Your task to perform on an android device: choose inbox layout in the gmail app Image 0: 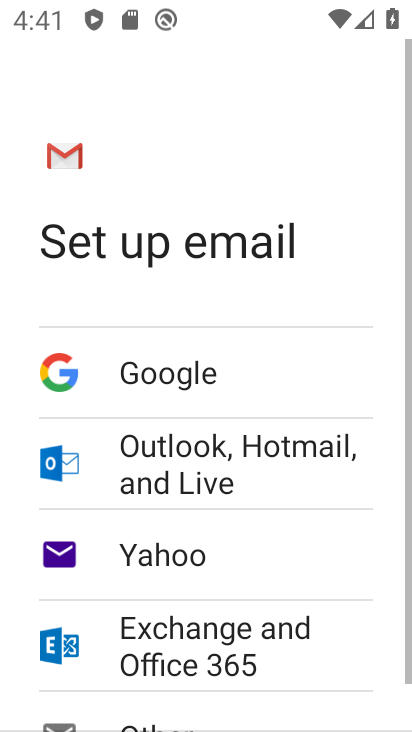
Step 0: press home button
Your task to perform on an android device: choose inbox layout in the gmail app Image 1: 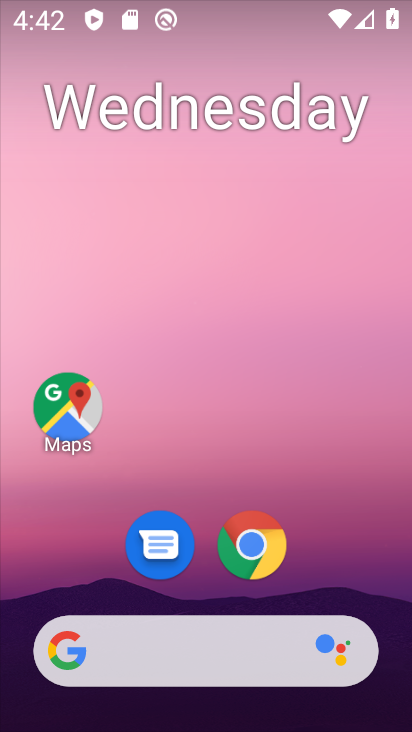
Step 1: drag from (323, 544) to (288, 146)
Your task to perform on an android device: choose inbox layout in the gmail app Image 2: 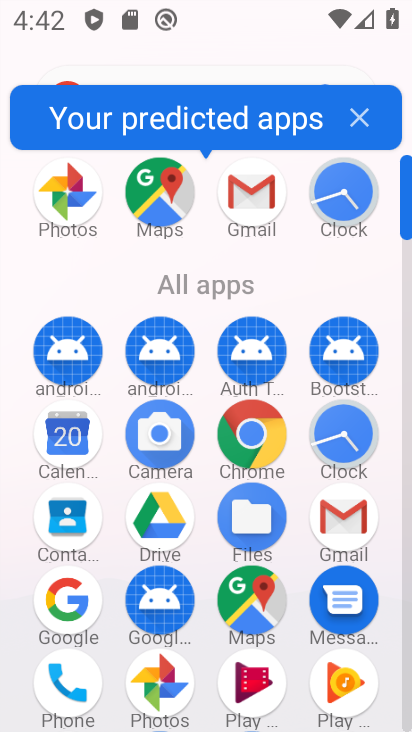
Step 2: click (340, 501)
Your task to perform on an android device: choose inbox layout in the gmail app Image 3: 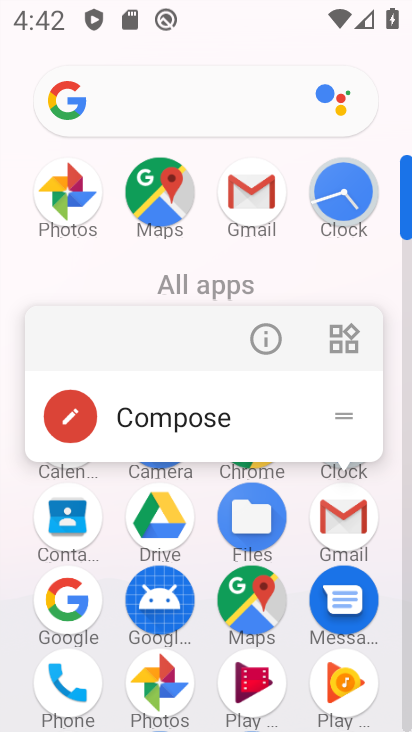
Step 3: click (334, 507)
Your task to perform on an android device: choose inbox layout in the gmail app Image 4: 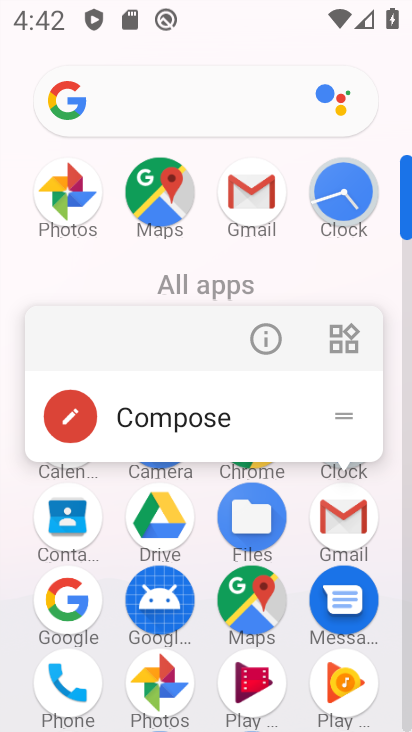
Step 4: click (360, 526)
Your task to perform on an android device: choose inbox layout in the gmail app Image 5: 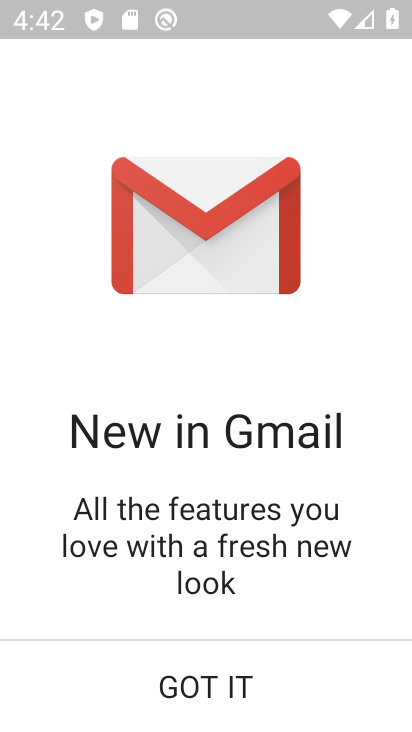
Step 5: click (173, 682)
Your task to perform on an android device: choose inbox layout in the gmail app Image 6: 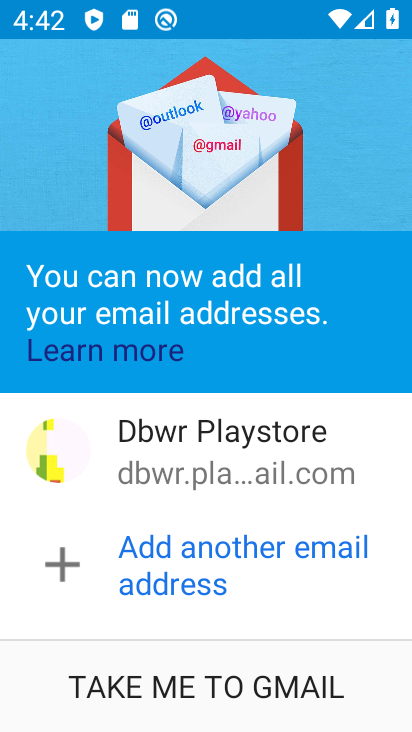
Step 6: click (266, 685)
Your task to perform on an android device: choose inbox layout in the gmail app Image 7: 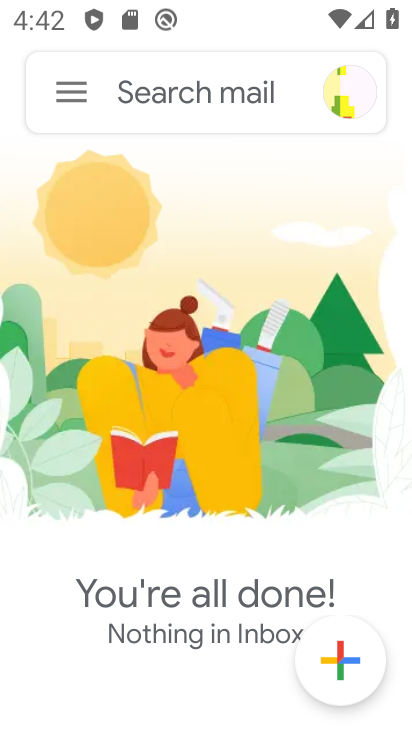
Step 7: click (62, 92)
Your task to perform on an android device: choose inbox layout in the gmail app Image 8: 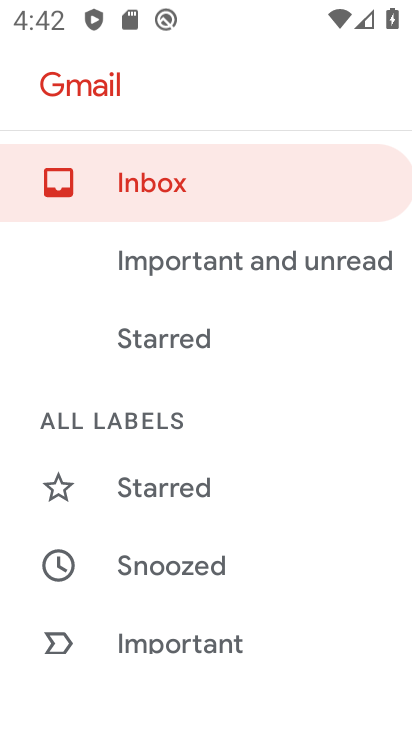
Step 8: drag from (203, 589) to (300, 151)
Your task to perform on an android device: choose inbox layout in the gmail app Image 9: 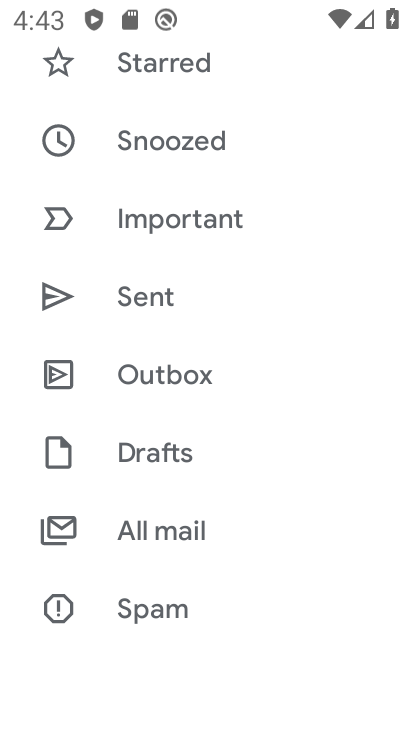
Step 9: drag from (233, 610) to (272, 182)
Your task to perform on an android device: choose inbox layout in the gmail app Image 10: 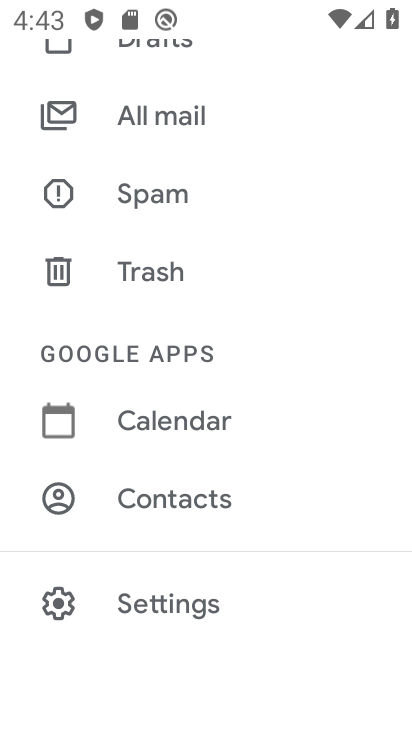
Step 10: drag from (223, 535) to (244, 167)
Your task to perform on an android device: choose inbox layout in the gmail app Image 11: 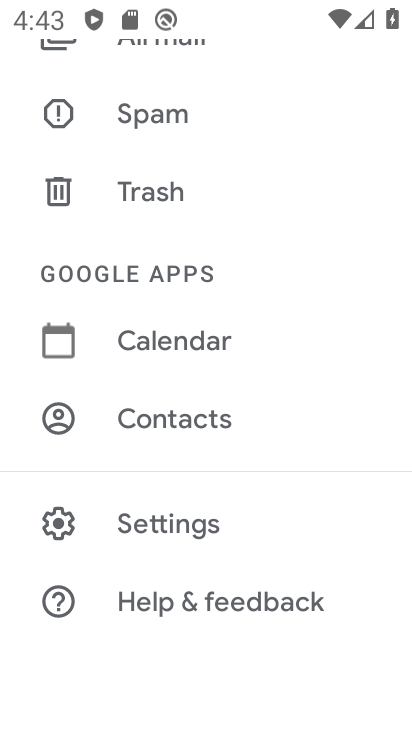
Step 11: click (170, 514)
Your task to perform on an android device: choose inbox layout in the gmail app Image 12: 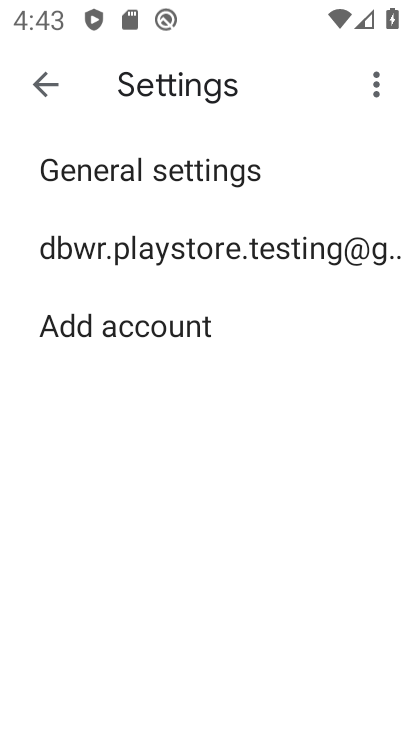
Step 12: click (245, 251)
Your task to perform on an android device: choose inbox layout in the gmail app Image 13: 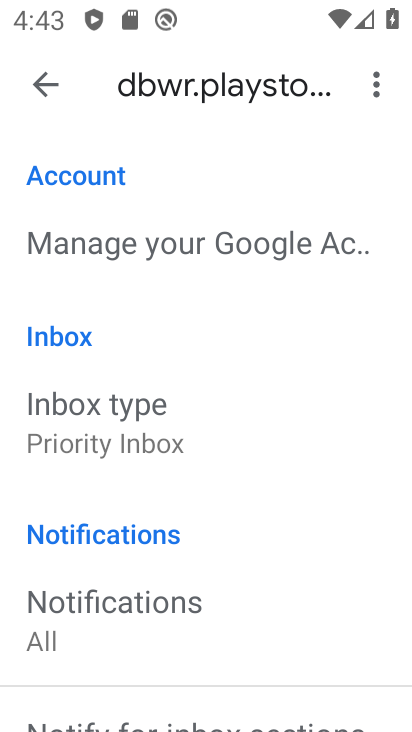
Step 13: click (105, 410)
Your task to perform on an android device: choose inbox layout in the gmail app Image 14: 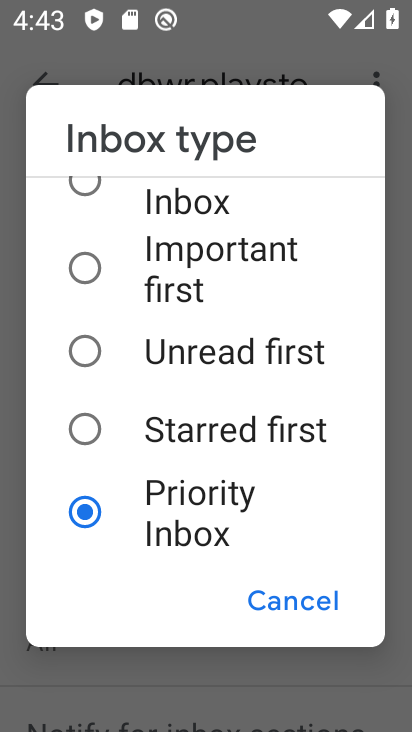
Step 14: task complete